Your task to perform on an android device: Go to wifi settings Image 0: 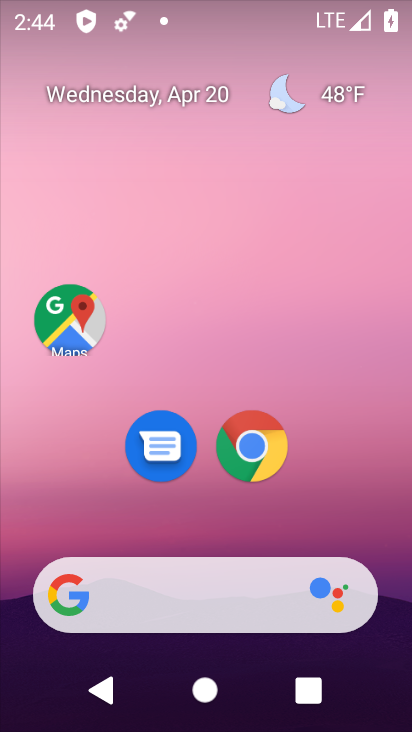
Step 0: drag from (347, 401) to (322, 60)
Your task to perform on an android device: Go to wifi settings Image 1: 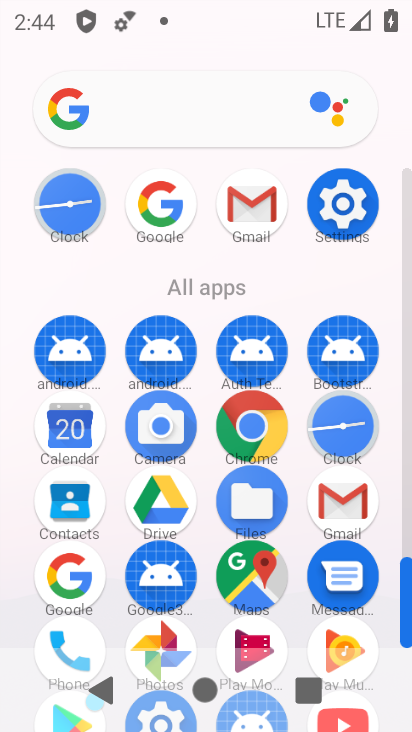
Step 1: click (348, 196)
Your task to perform on an android device: Go to wifi settings Image 2: 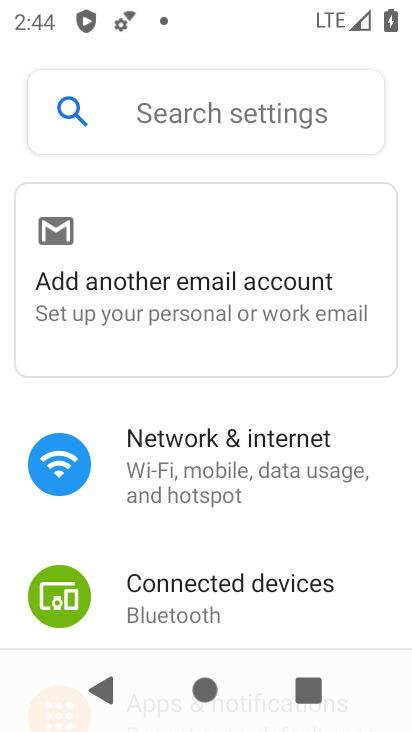
Step 2: click (259, 454)
Your task to perform on an android device: Go to wifi settings Image 3: 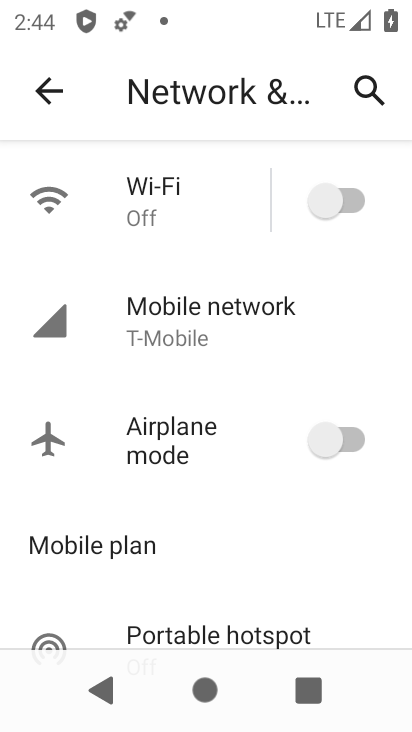
Step 3: click (154, 193)
Your task to perform on an android device: Go to wifi settings Image 4: 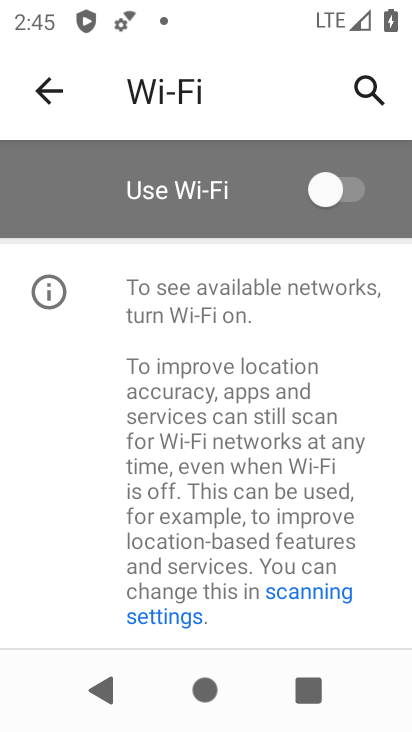
Step 4: task complete